Your task to perform on an android device: View the shopping cart on amazon.com. Add "corsair k70" to the cart on amazon.com Image 0: 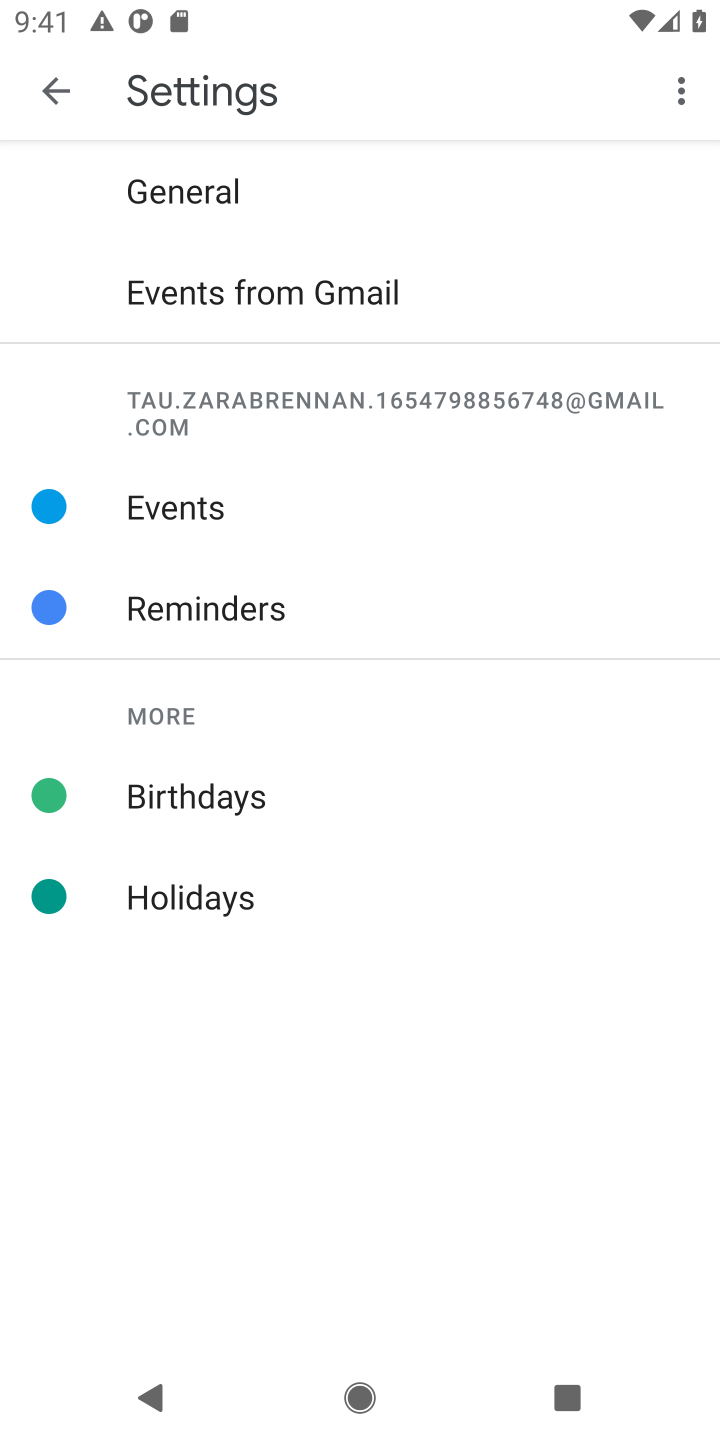
Step 0: press home button
Your task to perform on an android device: View the shopping cart on amazon.com. Add "corsair k70" to the cart on amazon.com Image 1: 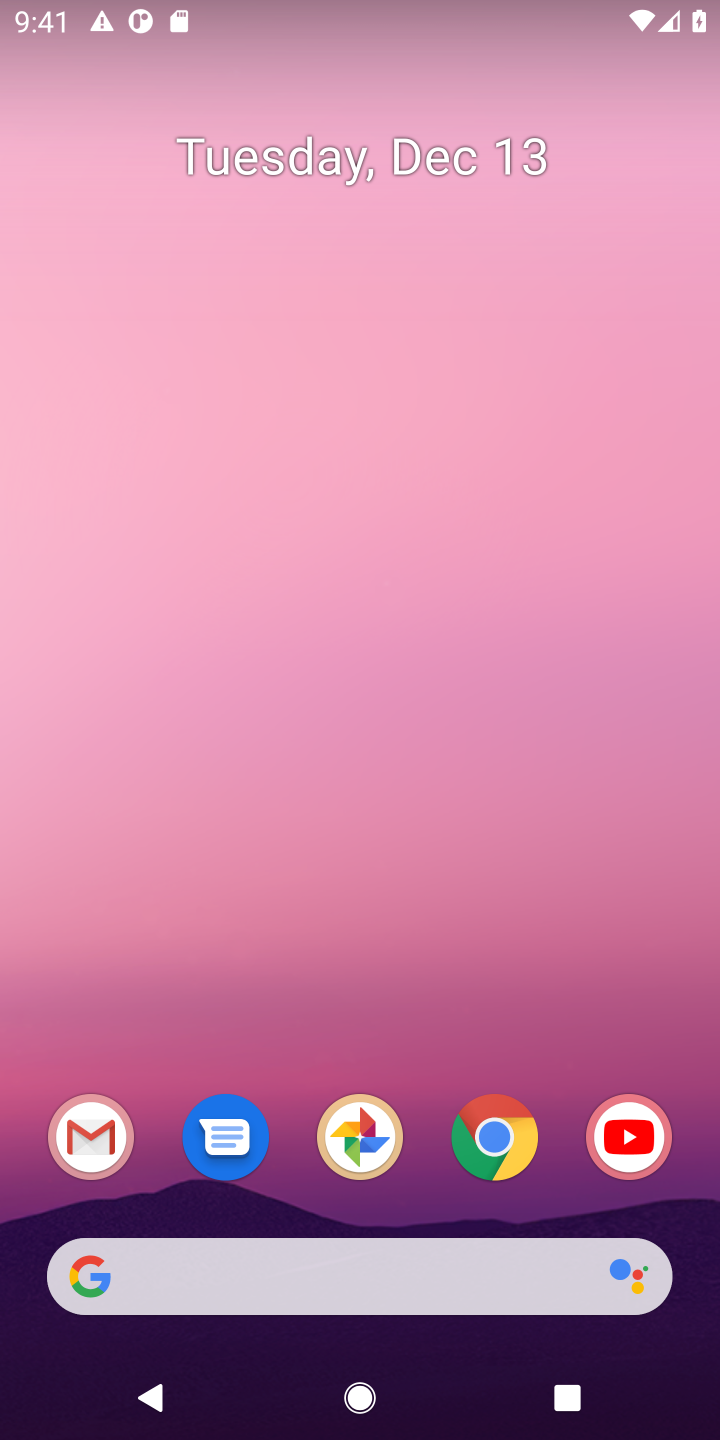
Step 1: click (478, 1135)
Your task to perform on an android device: View the shopping cart on amazon.com. Add "corsair k70" to the cart on amazon.com Image 2: 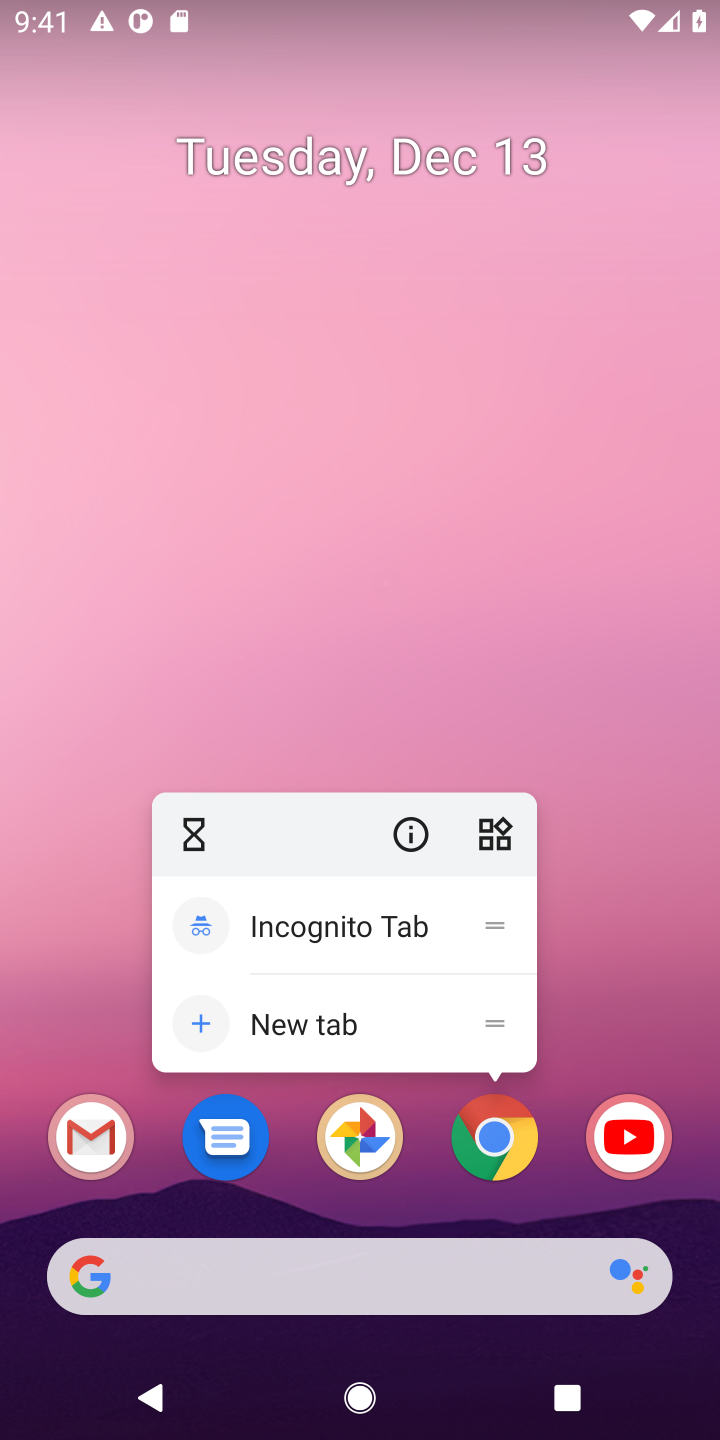
Step 2: click (491, 1142)
Your task to perform on an android device: View the shopping cart on amazon.com. Add "corsair k70" to the cart on amazon.com Image 3: 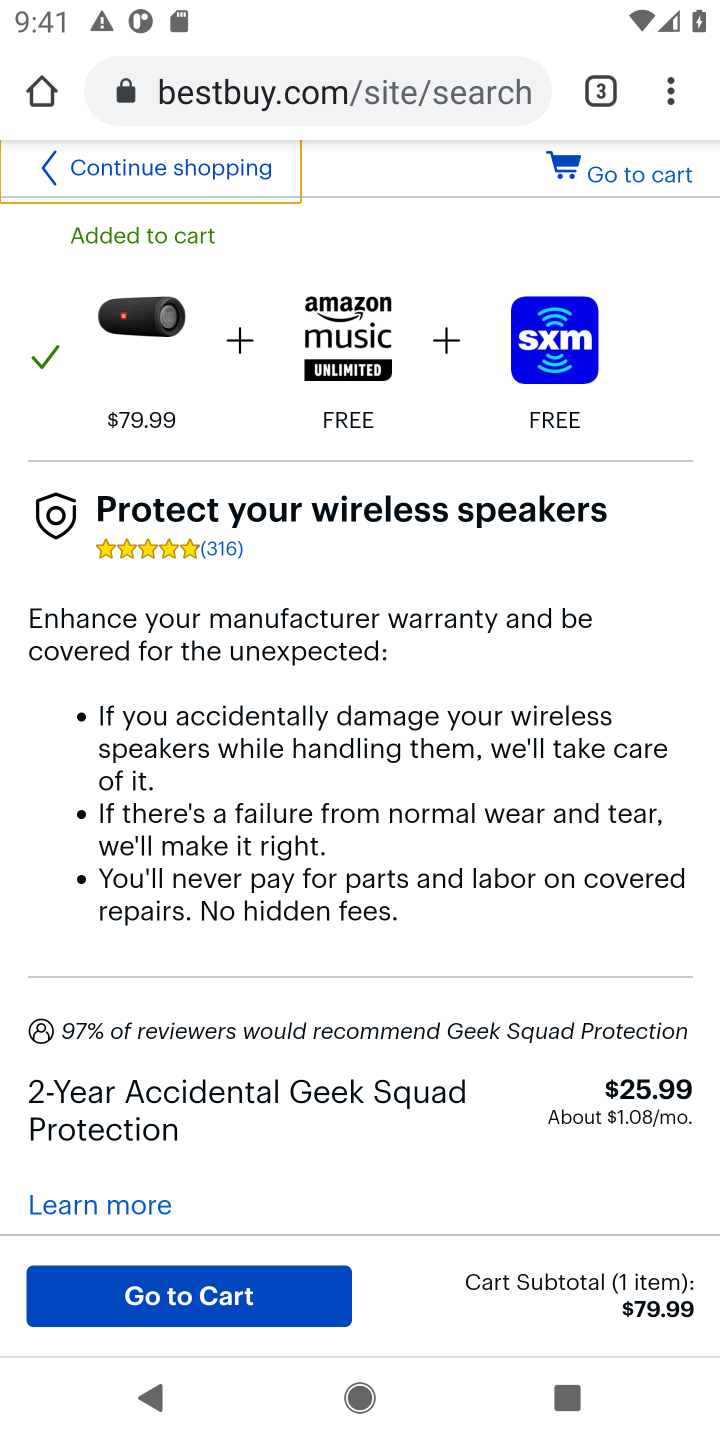
Step 3: click (598, 94)
Your task to perform on an android device: View the shopping cart on amazon.com. Add "corsair k70" to the cart on amazon.com Image 4: 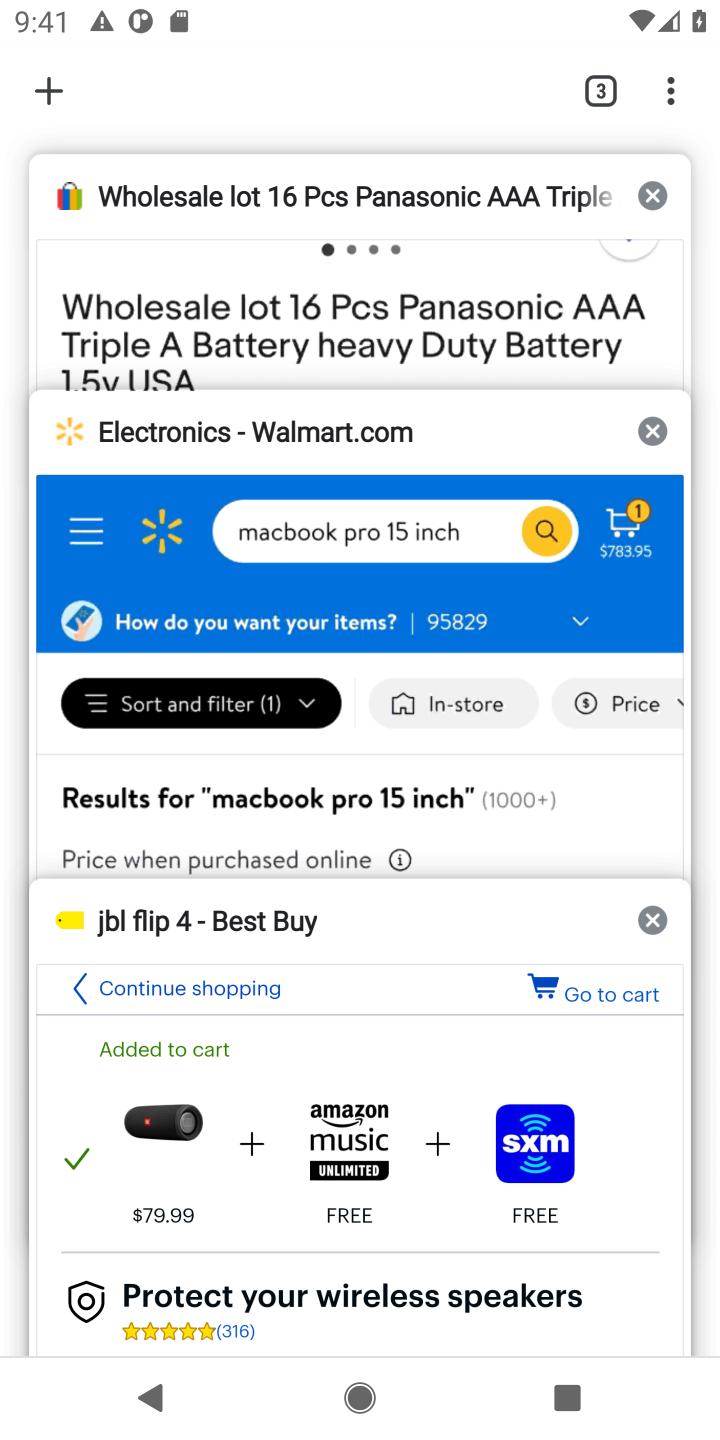
Step 4: click (48, 77)
Your task to perform on an android device: View the shopping cart on amazon.com. Add "corsair k70" to the cart on amazon.com Image 5: 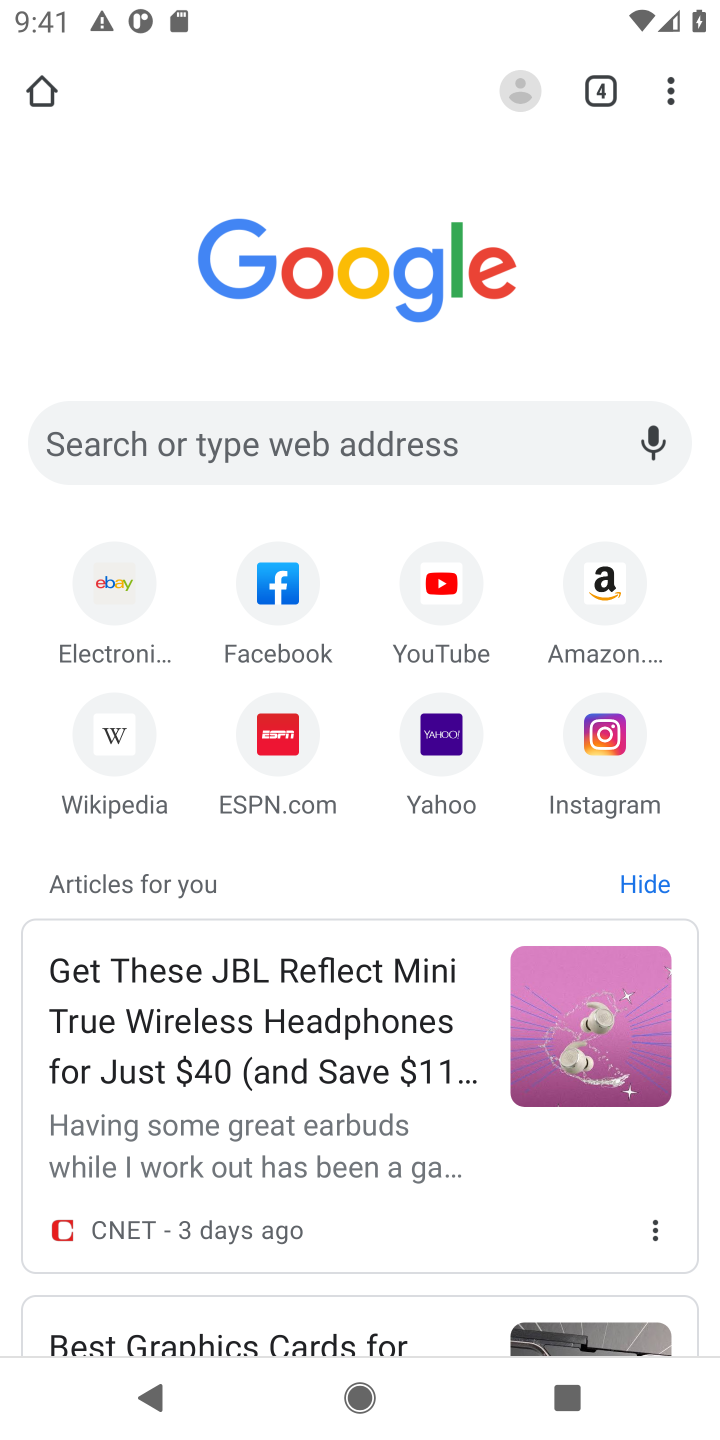
Step 5: click (614, 581)
Your task to perform on an android device: View the shopping cart on amazon.com. Add "corsair k70" to the cart on amazon.com Image 6: 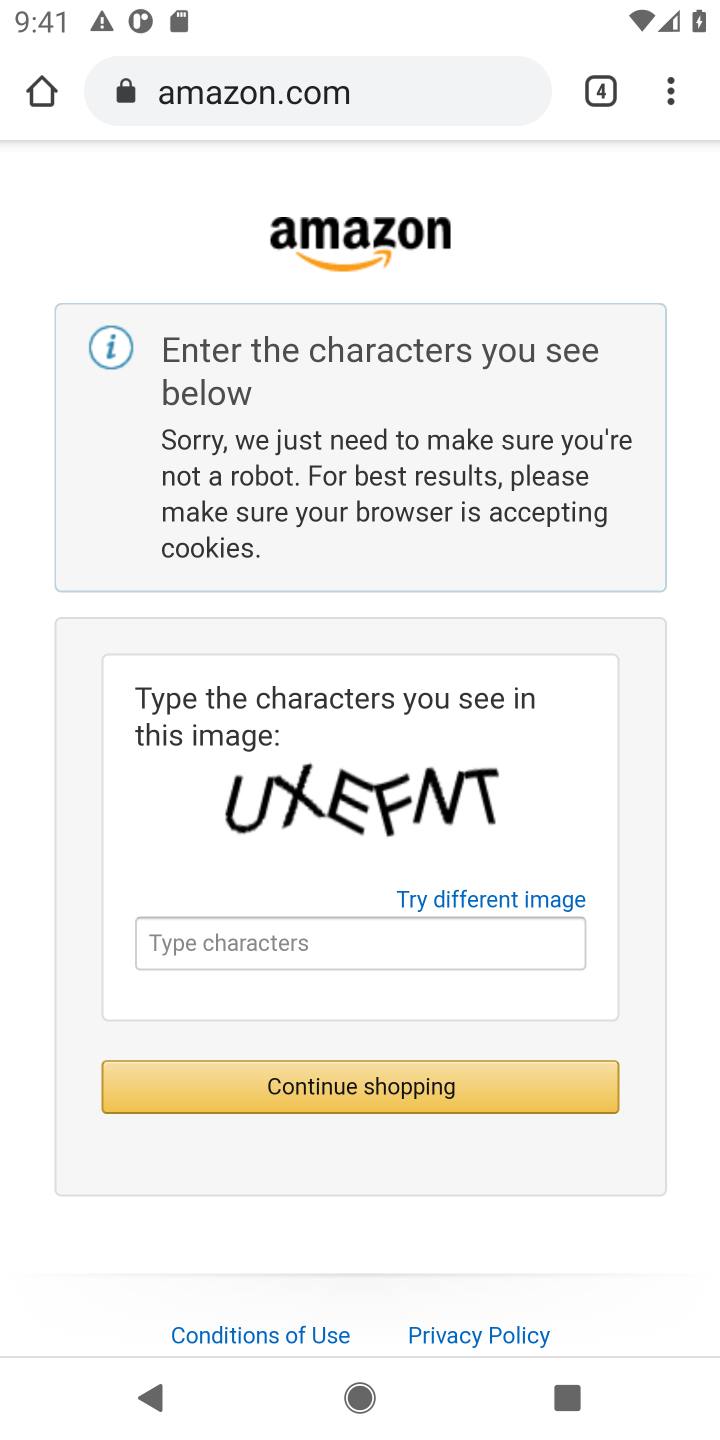
Step 6: press enter
Your task to perform on an android device: View the shopping cart on amazon.com. Add "corsair k70" to the cart on amazon.com Image 7: 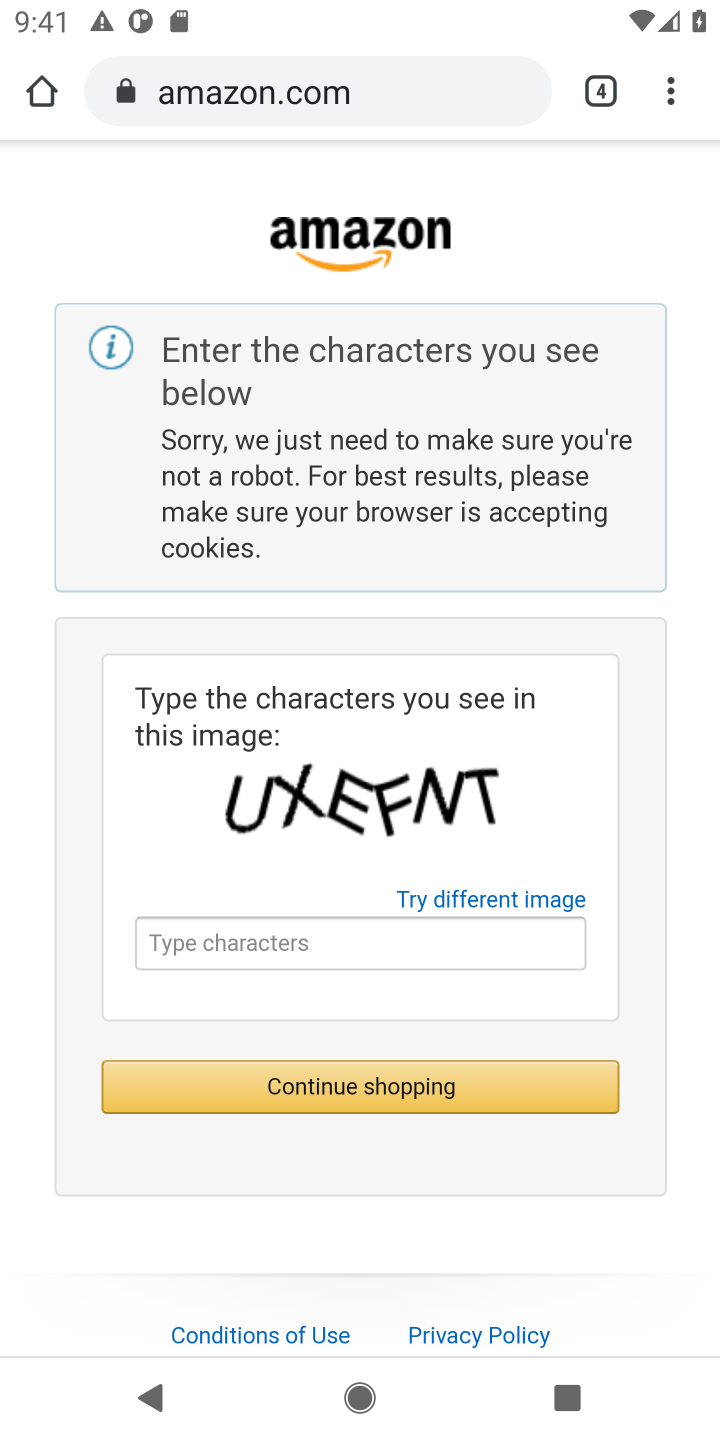
Step 7: type "UXEFNT"
Your task to perform on an android device: View the shopping cart on amazon.com. Add "corsair k70" to the cart on amazon.com Image 8: 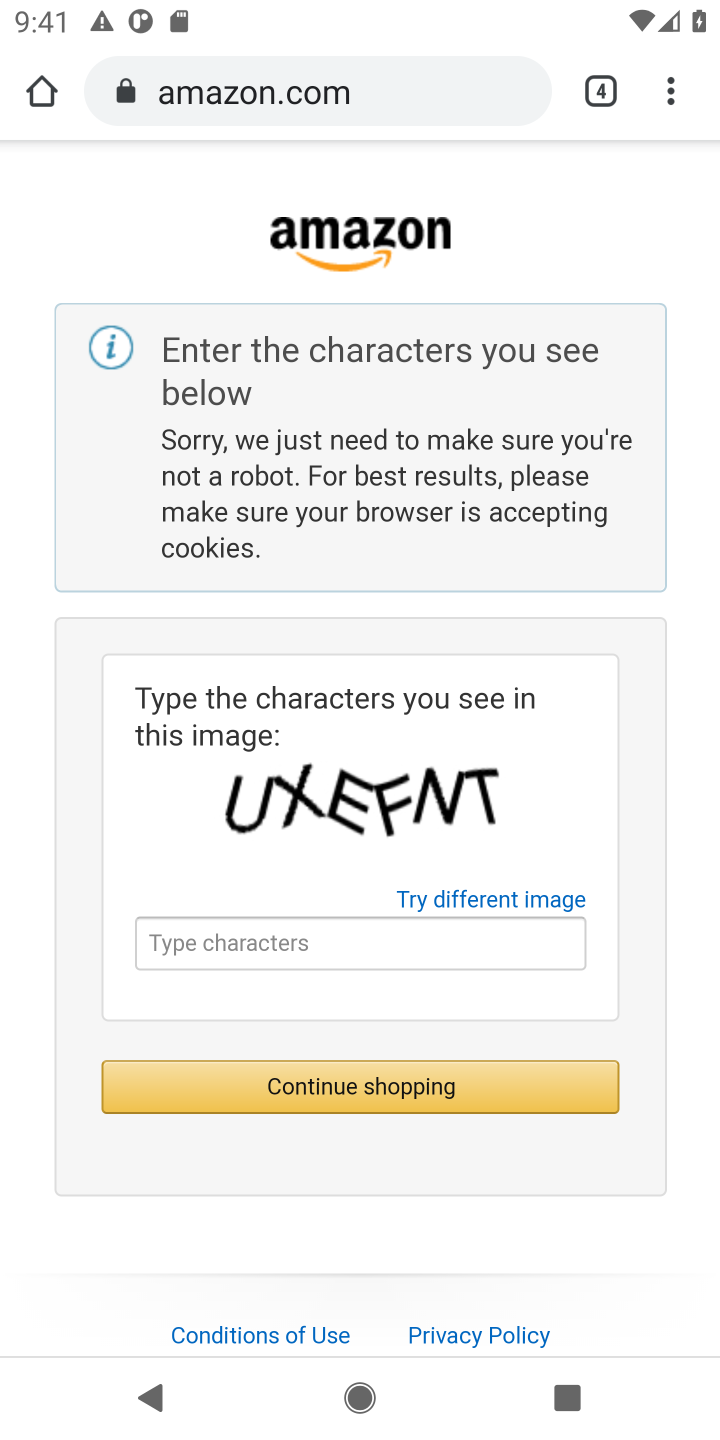
Step 8: click (383, 1094)
Your task to perform on an android device: View the shopping cart on amazon.com. Add "corsair k70" to the cart on amazon.com Image 9: 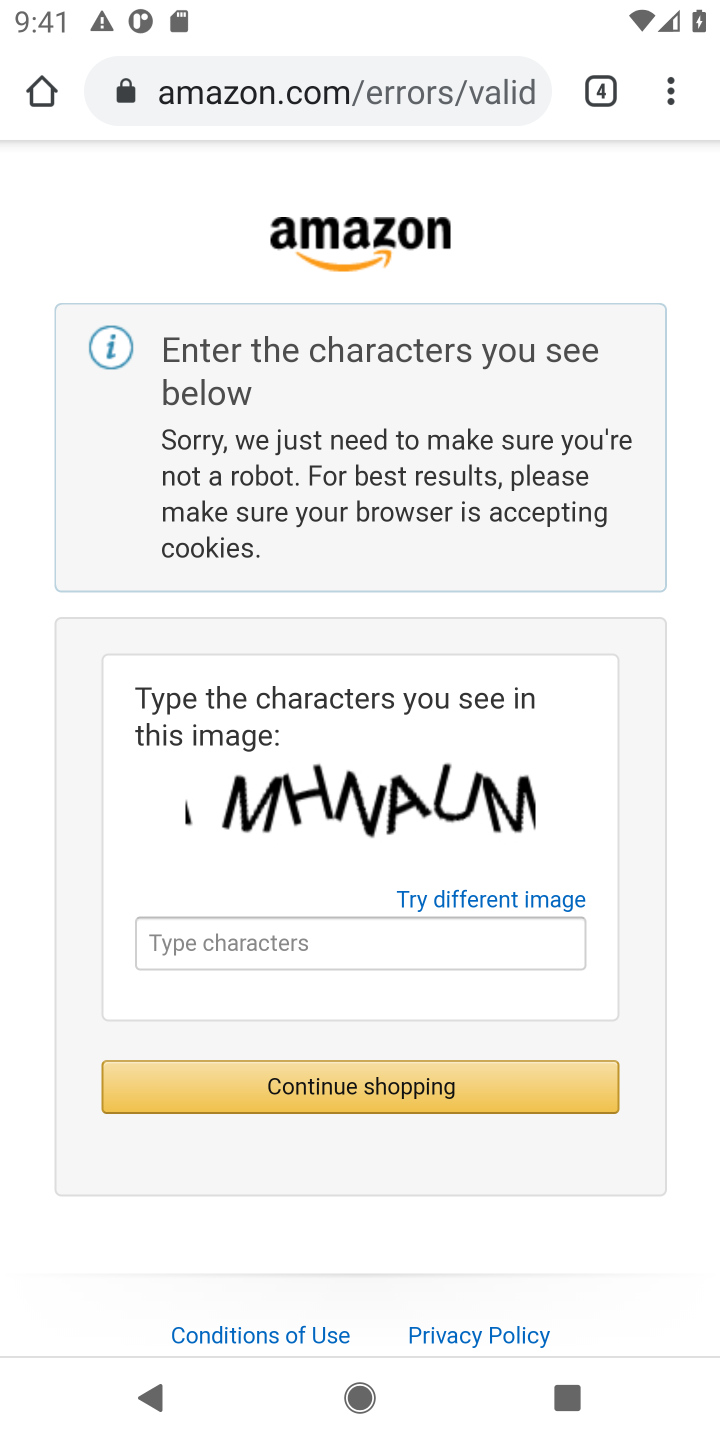
Step 9: click (486, 905)
Your task to perform on an android device: View the shopping cart on amazon.com. Add "corsair k70" to the cart on amazon.com Image 10: 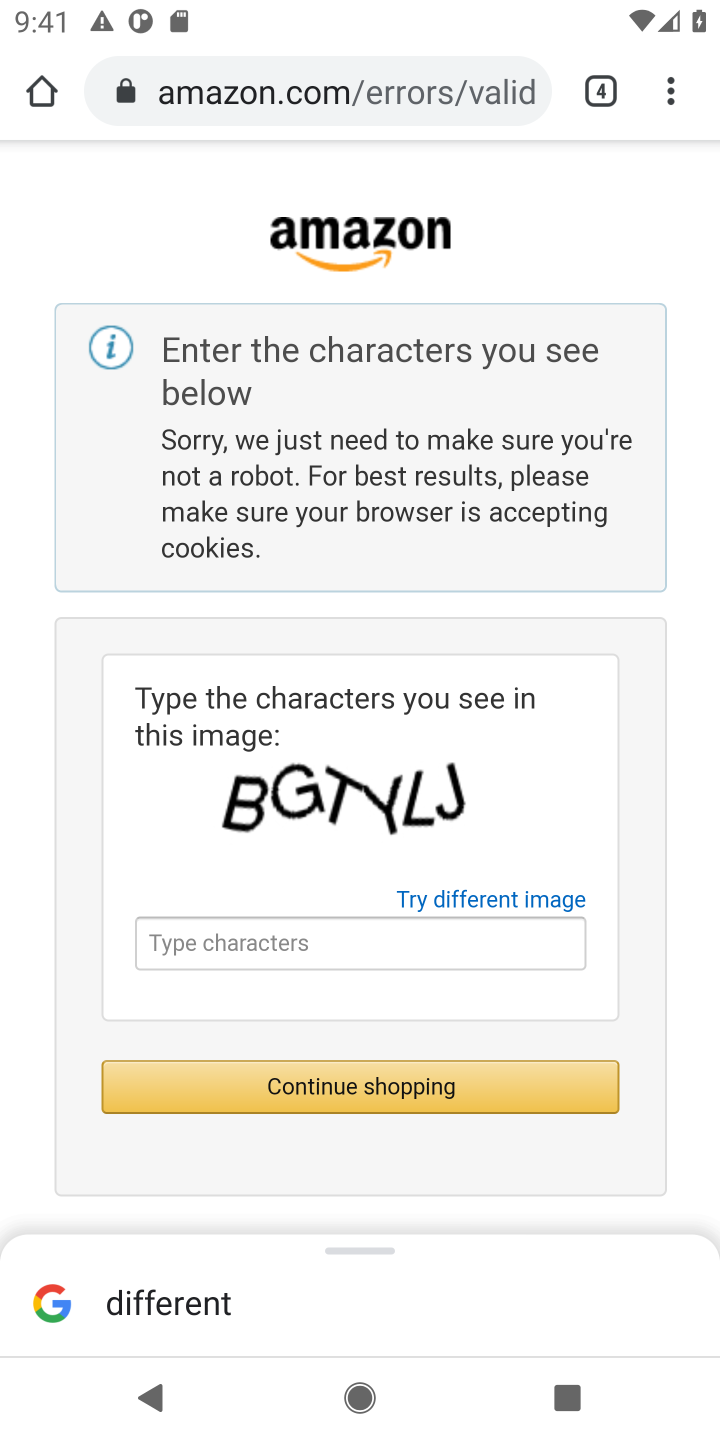
Step 10: click (396, 931)
Your task to perform on an android device: View the shopping cart on amazon.com. Add "corsair k70" to the cart on amazon.com Image 11: 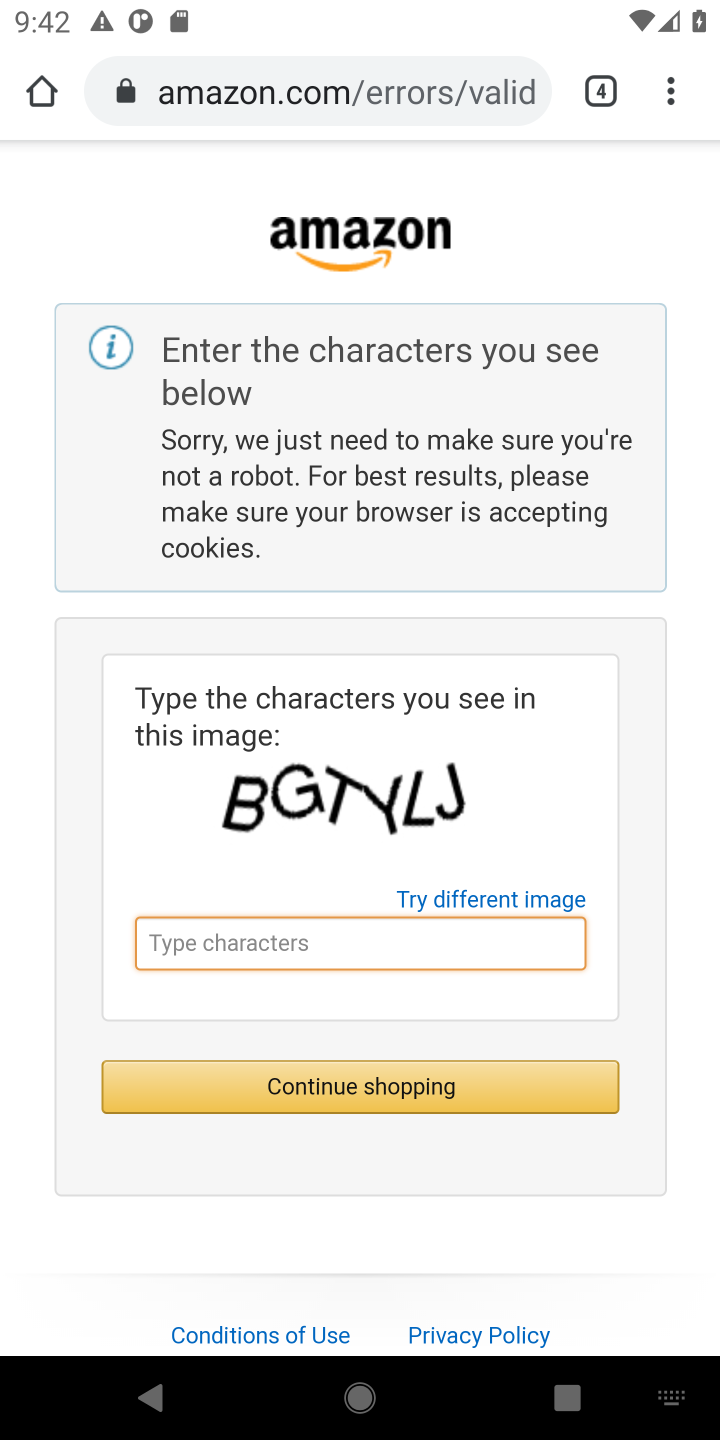
Step 11: type "BGTYLJ"
Your task to perform on an android device: View the shopping cart on amazon.com. Add "corsair k70" to the cart on amazon.com Image 12: 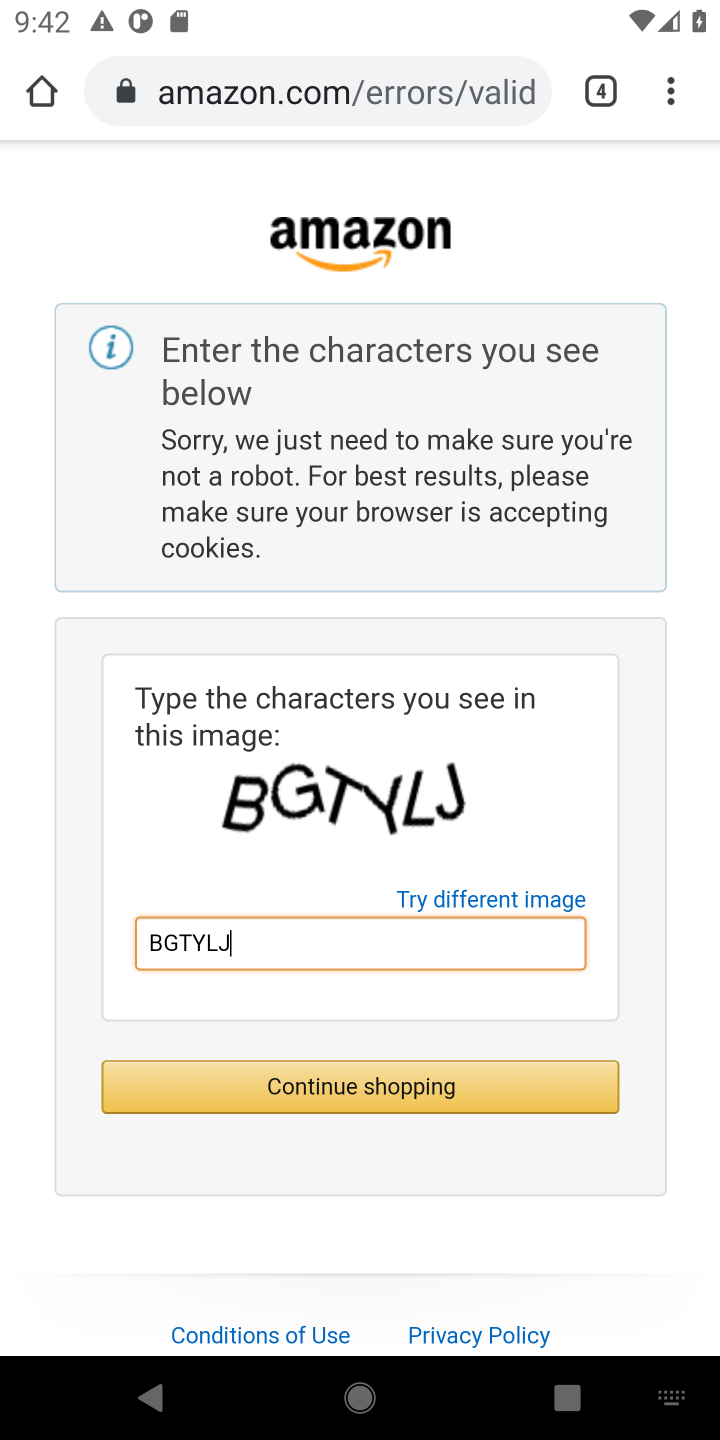
Step 12: click (400, 1089)
Your task to perform on an android device: View the shopping cart on amazon.com. Add "corsair k70" to the cart on amazon.com Image 13: 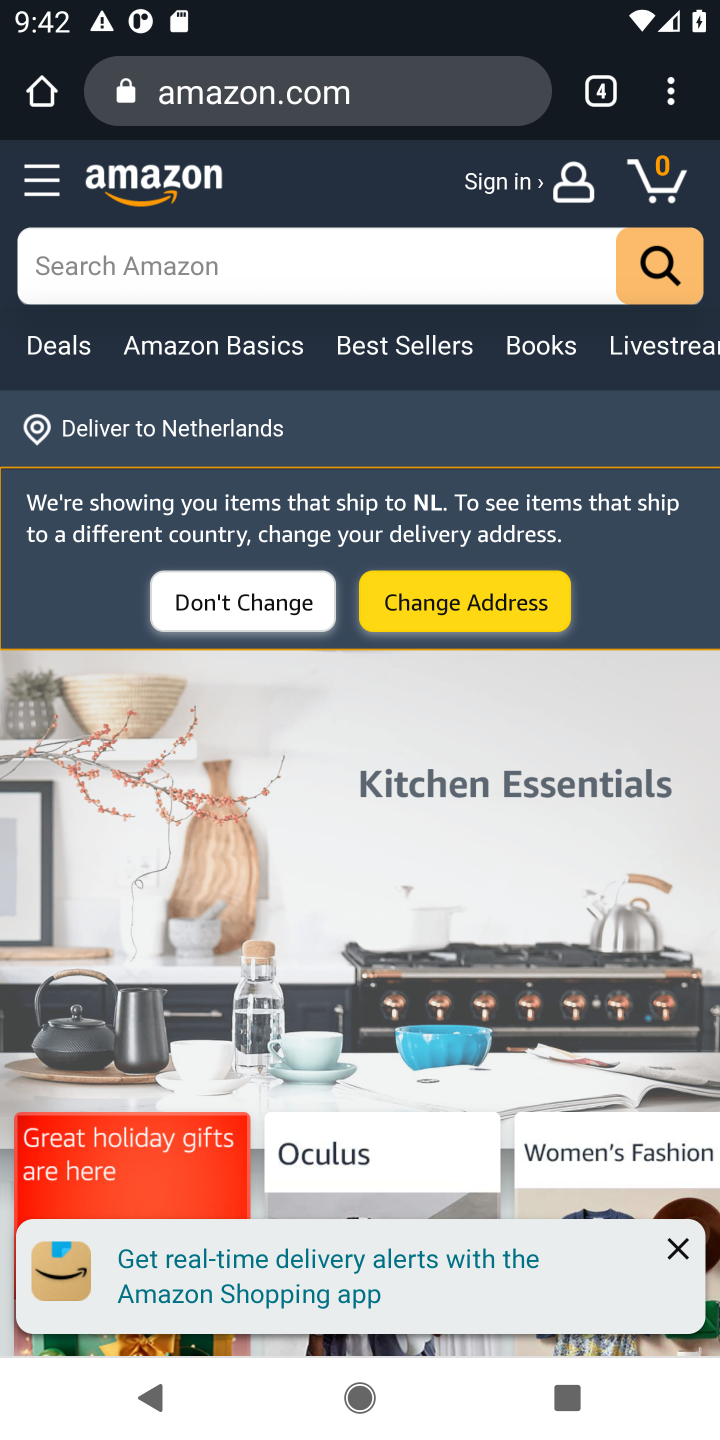
Step 13: click (176, 261)
Your task to perform on an android device: View the shopping cart on amazon.com. Add "corsair k70" to the cart on amazon.com Image 14: 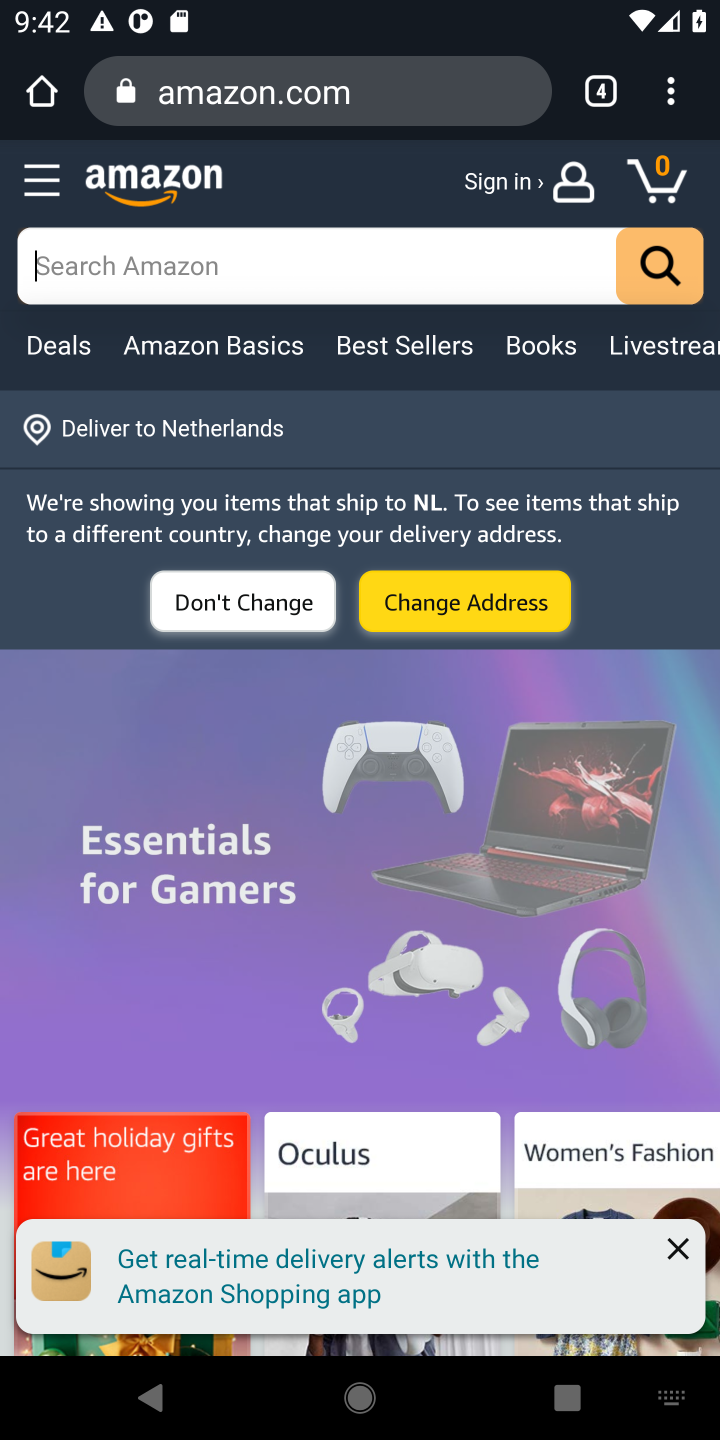
Step 14: type "corsair k70"
Your task to perform on an android device: View the shopping cart on amazon.com. Add "corsair k70" to the cart on amazon.com Image 15: 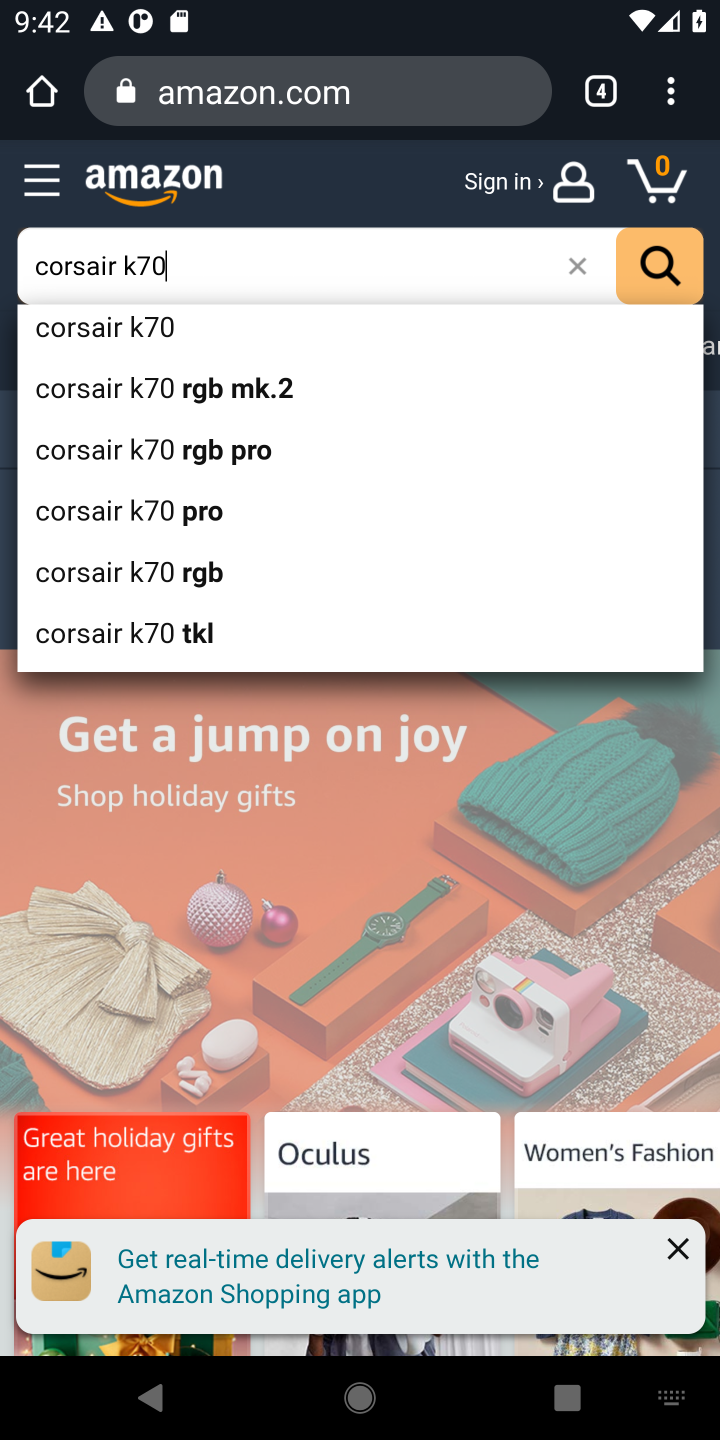
Step 15: click (115, 336)
Your task to perform on an android device: View the shopping cart on amazon.com. Add "corsair k70" to the cart on amazon.com Image 16: 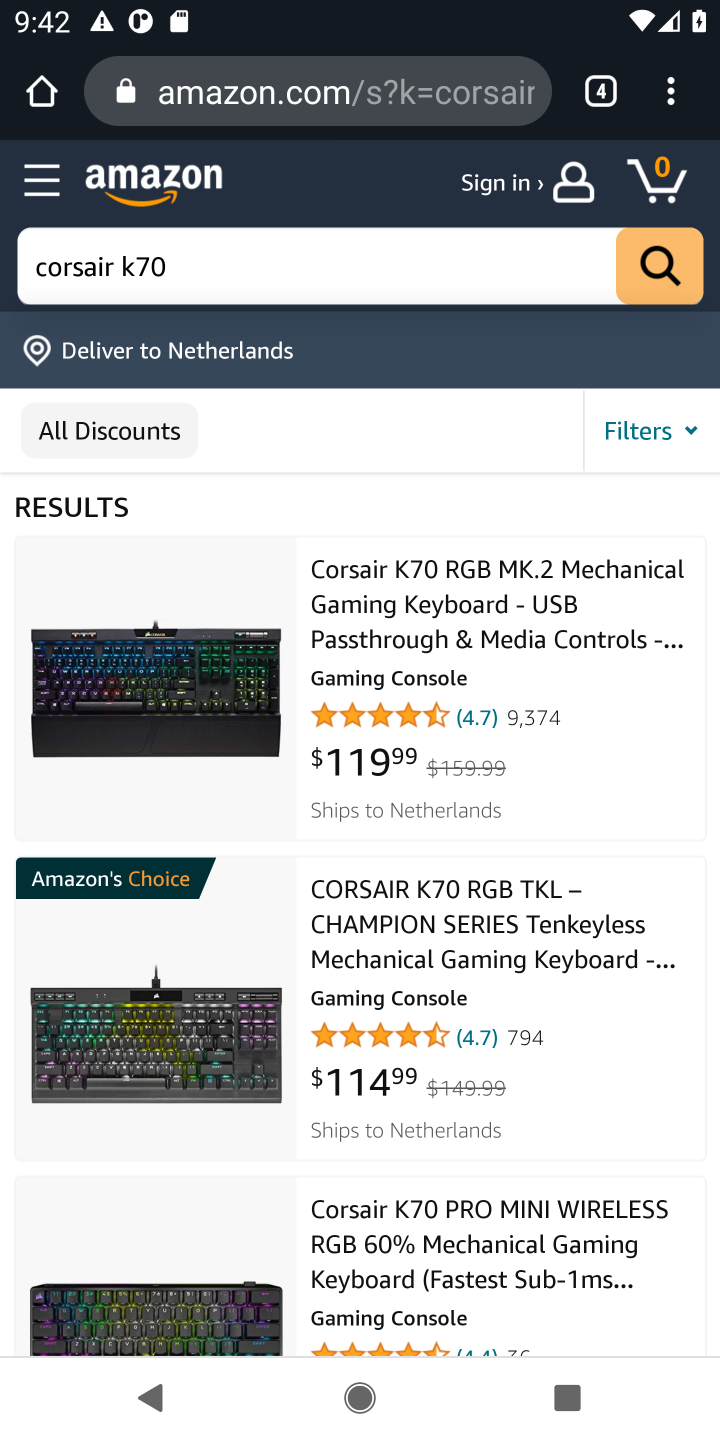
Step 16: click (444, 572)
Your task to perform on an android device: View the shopping cart on amazon.com. Add "corsair k70" to the cart on amazon.com Image 17: 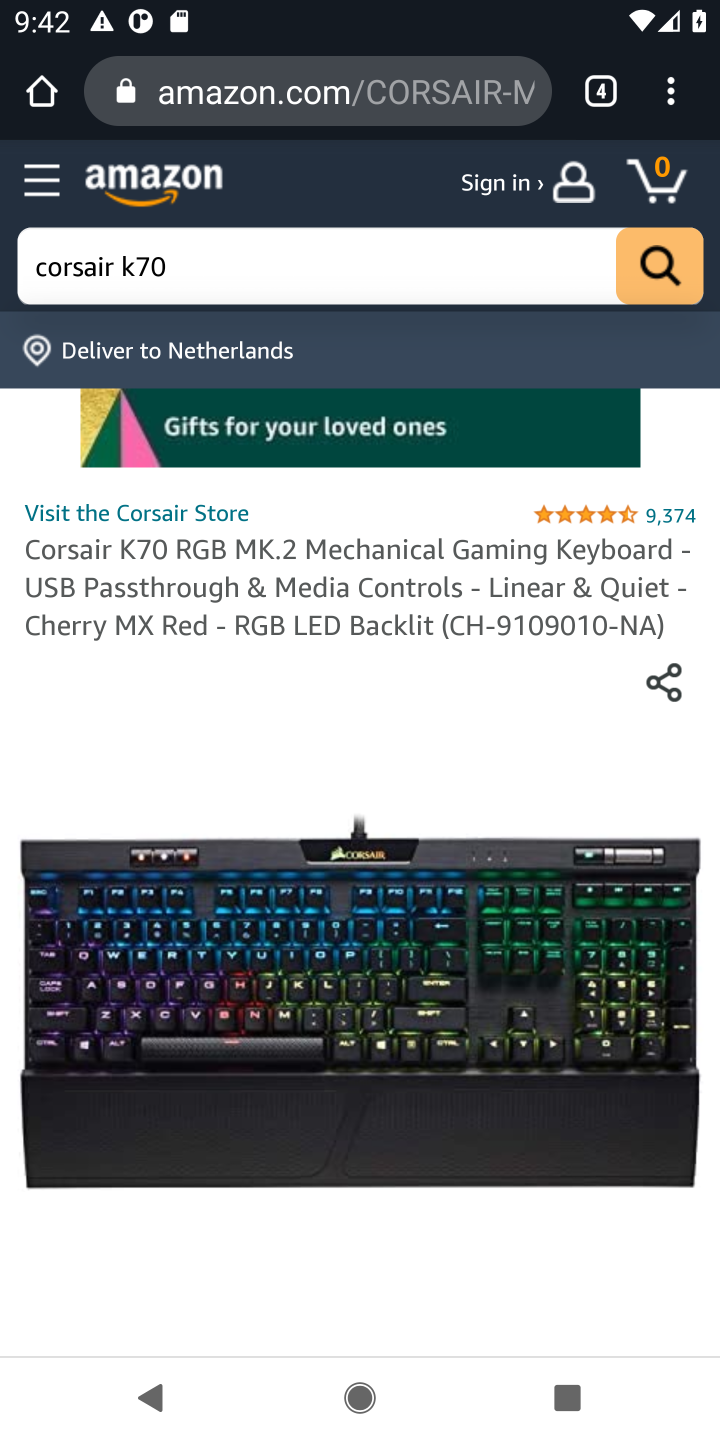
Step 17: drag from (387, 1268) to (336, 425)
Your task to perform on an android device: View the shopping cart on amazon.com. Add "corsair k70" to the cart on amazon.com Image 18: 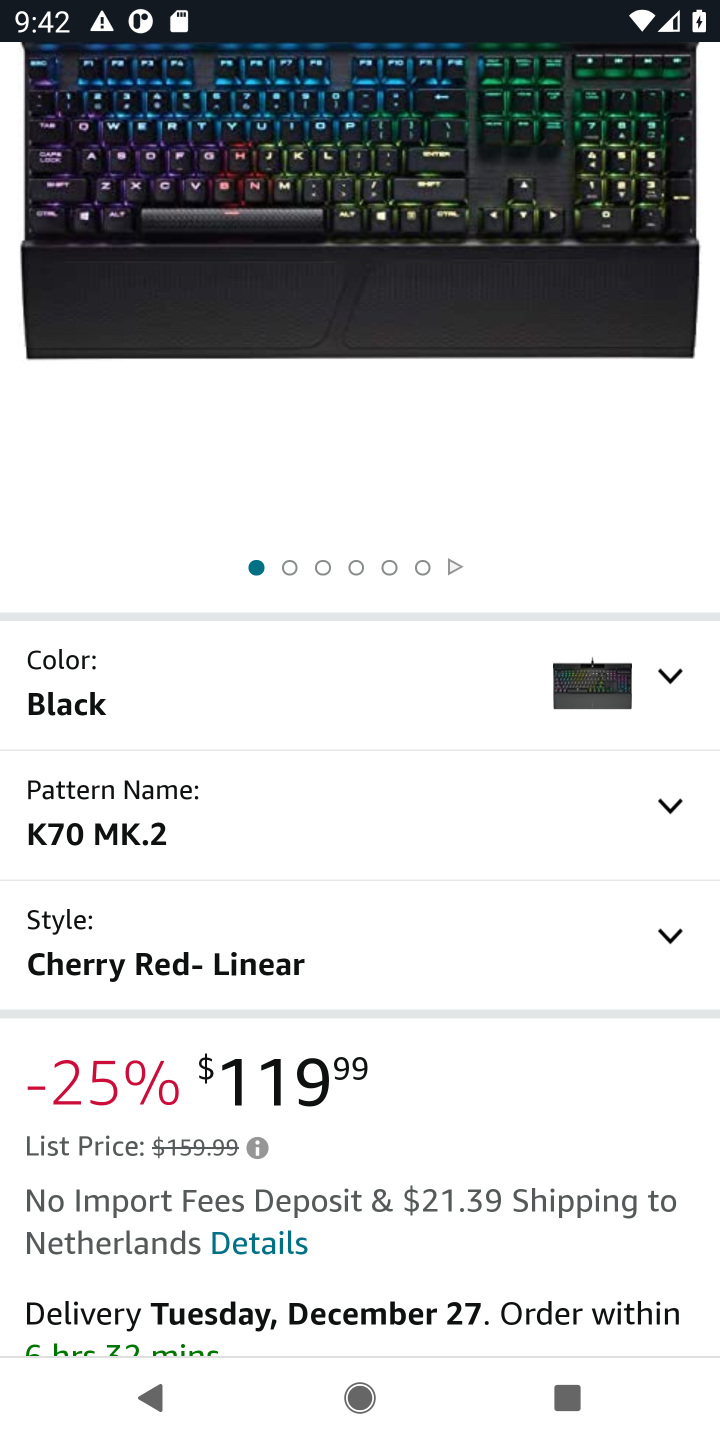
Step 18: drag from (387, 1222) to (267, 430)
Your task to perform on an android device: View the shopping cart on amazon.com. Add "corsair k70" to the cart on amazon.com Image 19: 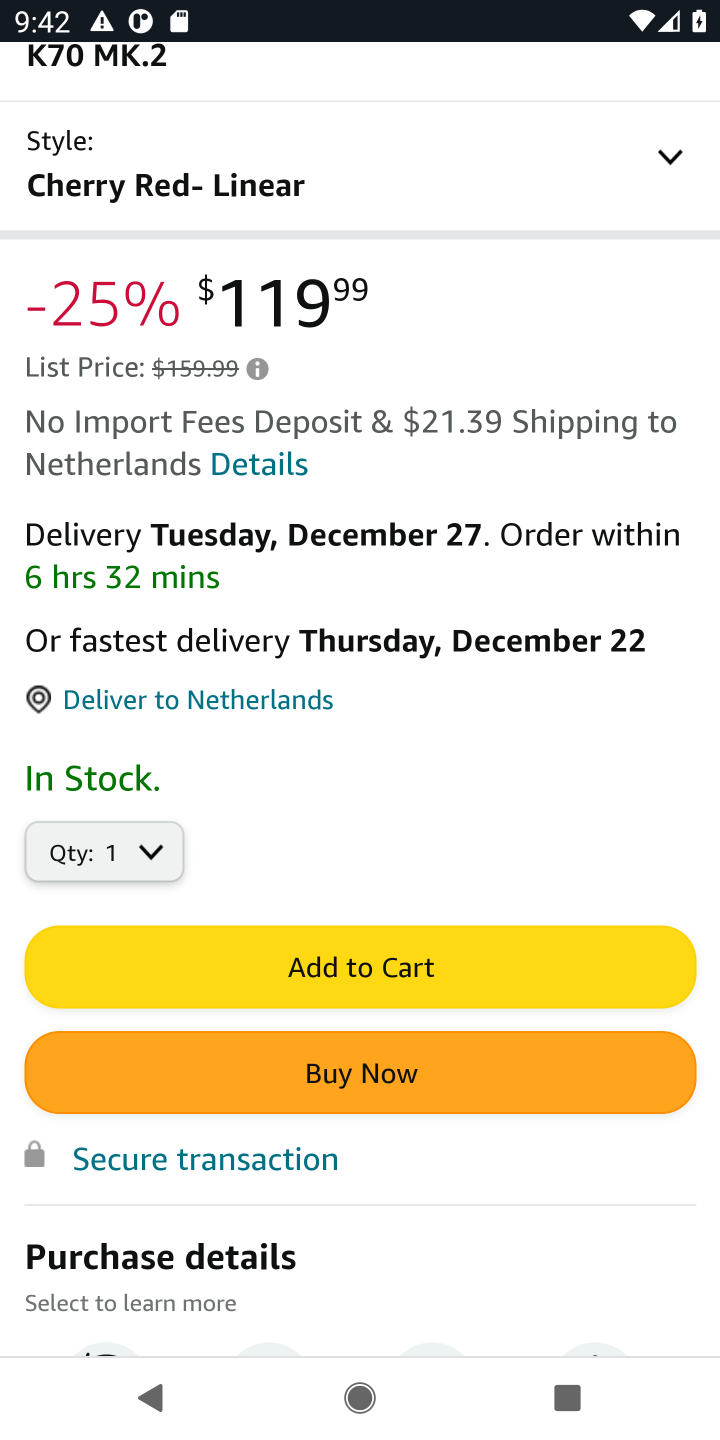
Step 19: click (427, 965)
Your task to perform on an android device: View the shopping cart on amazon.com. Add "corsair k70" to the cart on amazon.com Image 20: 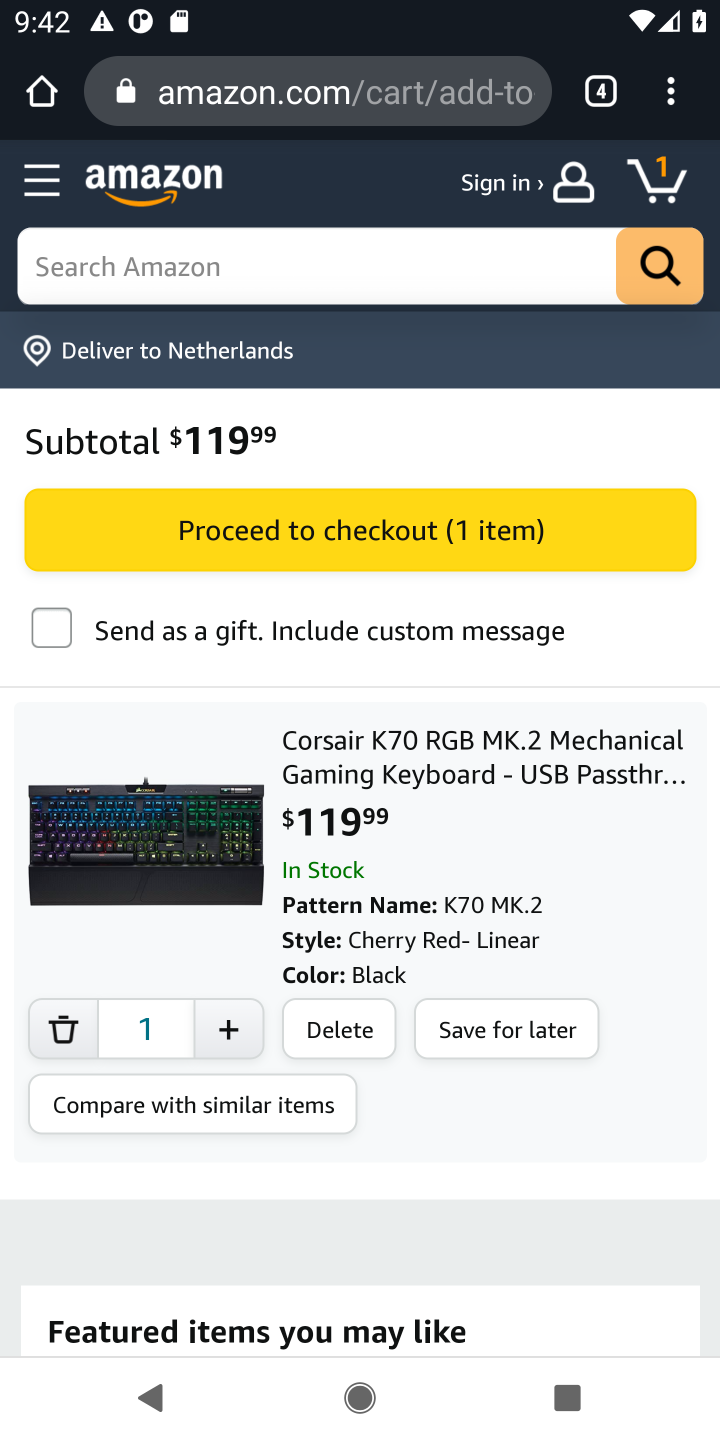
Step 20: task complete